Your task to perform on an android device: check android version Image 0: 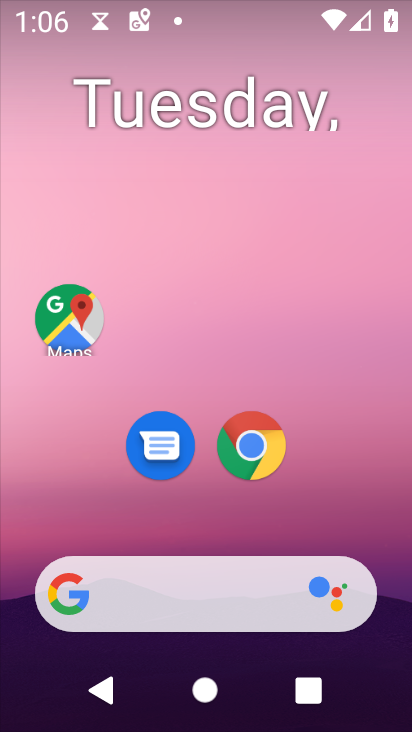
Step 0: drag from (321, 575) to (307, 4)
Your task to perform on an android device: check android version Image 1: 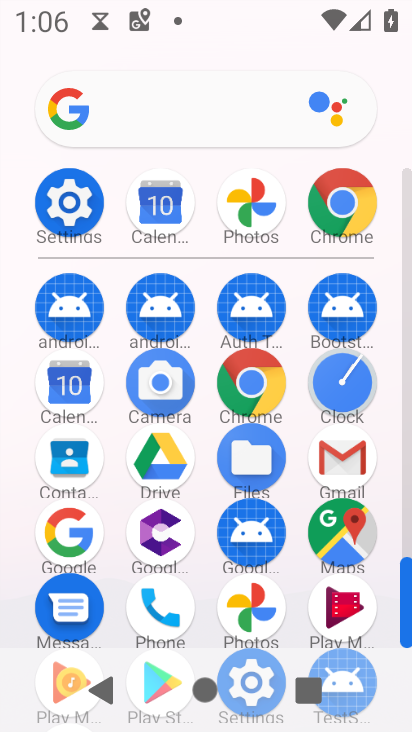
Step 1: click (44, 198)
Your task to perform on an android device: check android version Image 2: 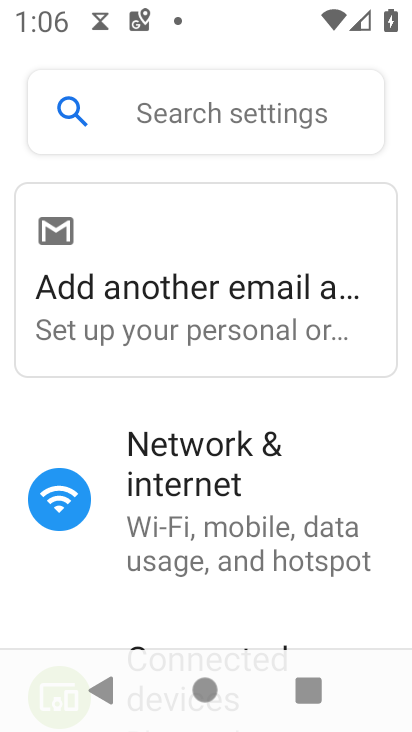
Step 2: drag from (218, 614) to (286, 119)
Your task to perform on an android device: check android version Image 3: 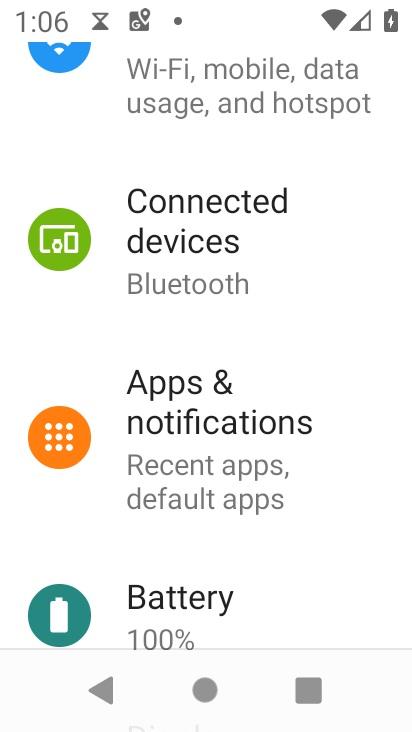
Step 3: drag from (340, 602) to (399, 120)
Your task to perform on an android device: check android version Image 4: 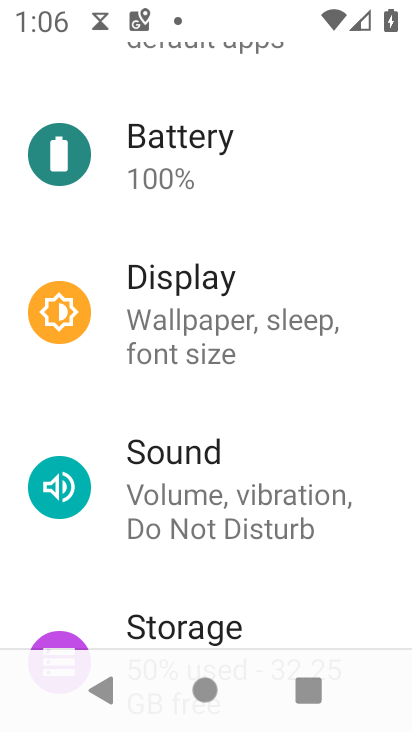
Step 4: drag from (318, 584) to (408, 275)
Your task to perform on an android device: check android version Image 5: 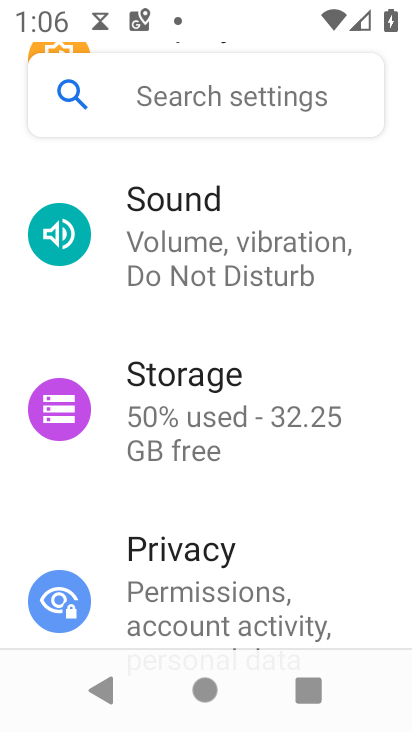
Step 5: drag from (241, 622) to (290, 130)
Your task to perform on an android device: check android version Image 6: 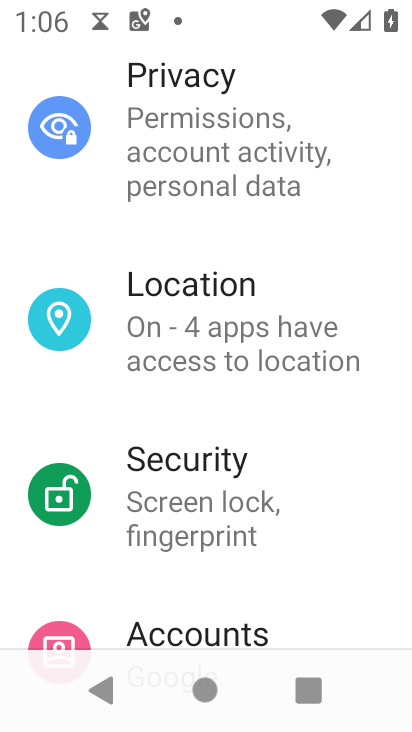
Step 6: drag from (214, 638) to (294, 146)
Your task to perform on an android device: check android version Image 7: 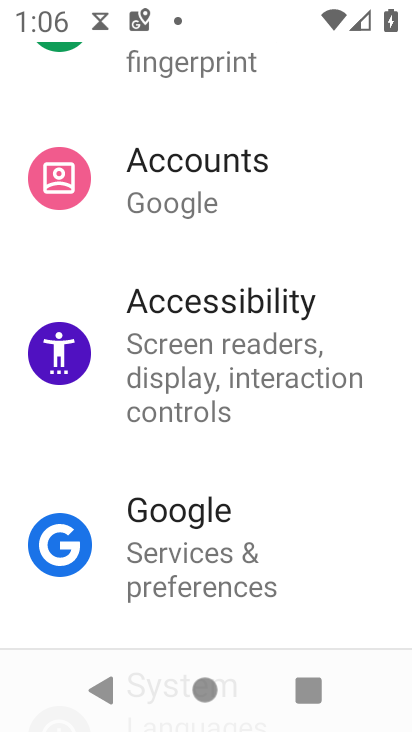
Step 7: drag from (282, 605) to (297, 132)
Your task to perform on an android device: check android version Image 8: 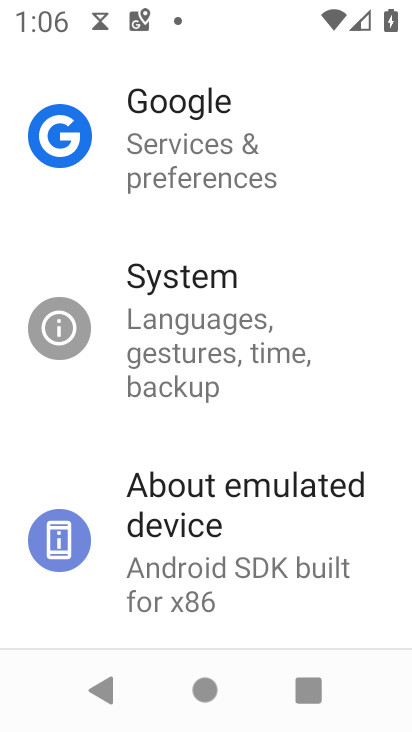
Step 8: drag from (204, 648) to (284, 221)
Your task to perform on an android device: check android version Image 9: 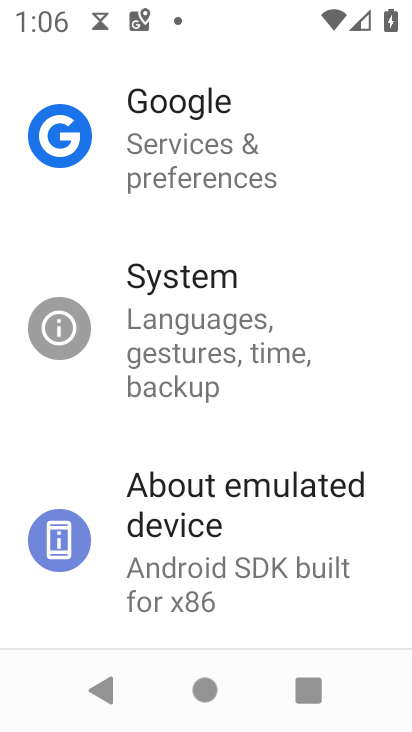
Step 9: click (253, 576)
Your task to perform on an android device: check android version Image 10: 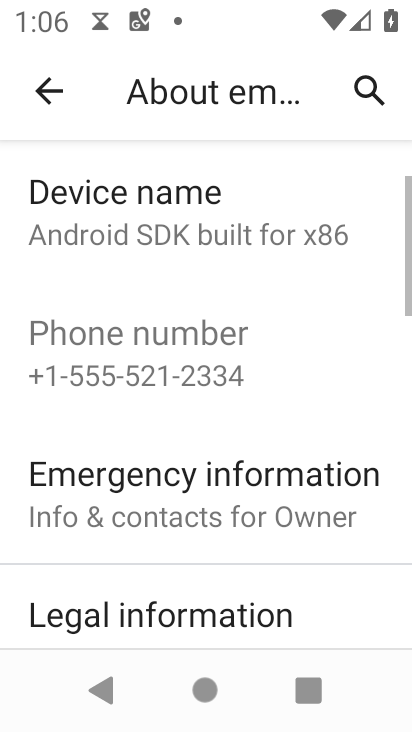
Step 10: drag from (230, 627) to (280, 149)
Your task to perform on an android device: check android version Image 11: 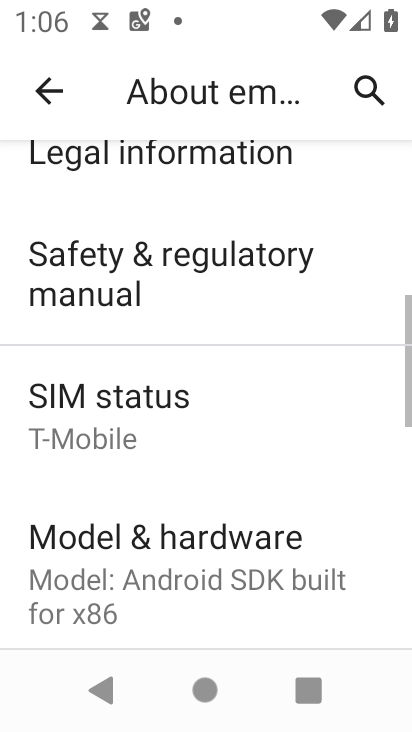
Step 11: drag from (236, 612) to (290, 295)
Your task to perform on an android device: check android version Image 12: 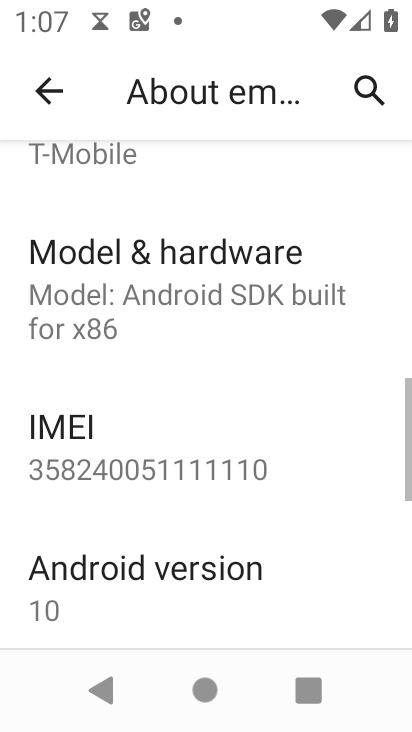
Step 12: click (159, 608)
Your task to perform on an android device: check android version Image 13: 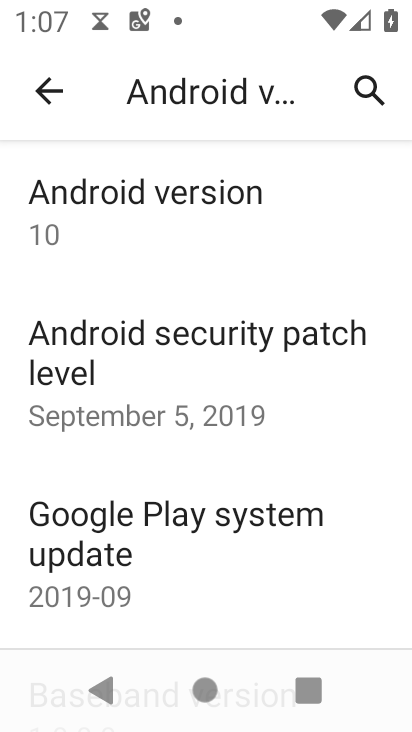
Step 13: task complete